Your task to perform on an android device: turn off sleep mode Image 0: 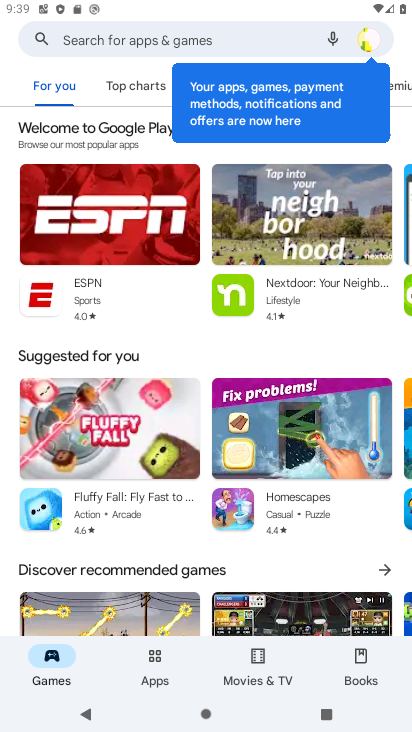
Step 0: press home button
Your task to perform on an android device: turn off sleep mode Image 1: 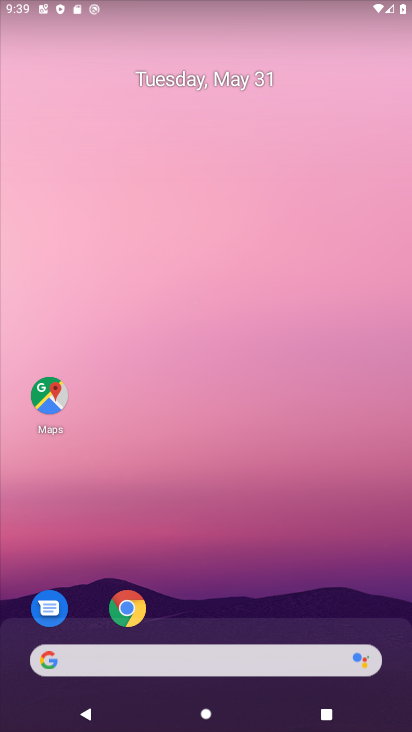
Step 1: drag from (223, 646) to (218, 11)
Your task to perform on an android device: turn off sleep mode Image 2: 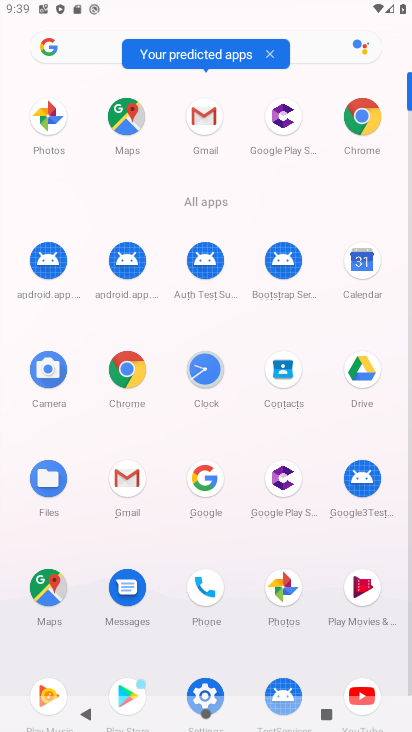
Step 2: click (193, 679)
Your task to perform on an android device: turn off sleep mode Image 3: 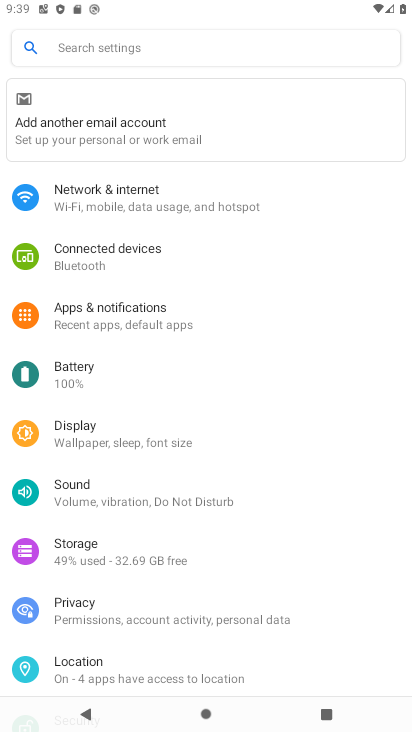
Step 3: click (100, 444)
Your task to perform on an android device: turn off sleep mode Image 4: 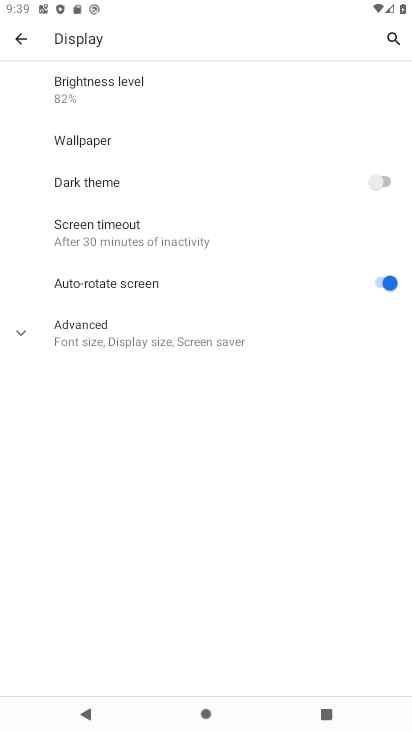
Step 4: task complete